Your task to perform on an android device: turn smart compose on in the gmail app Image 0: 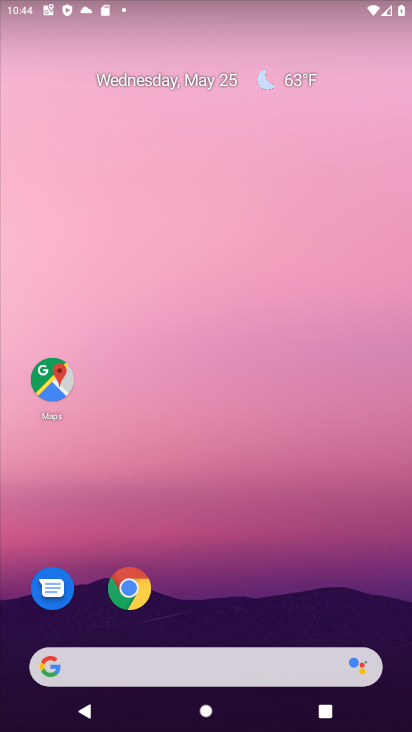
Step 0: drag from (268, 553) to (244, 264)
Your task to perform on an android device: turn smart compose on in the gmail app Image 1: 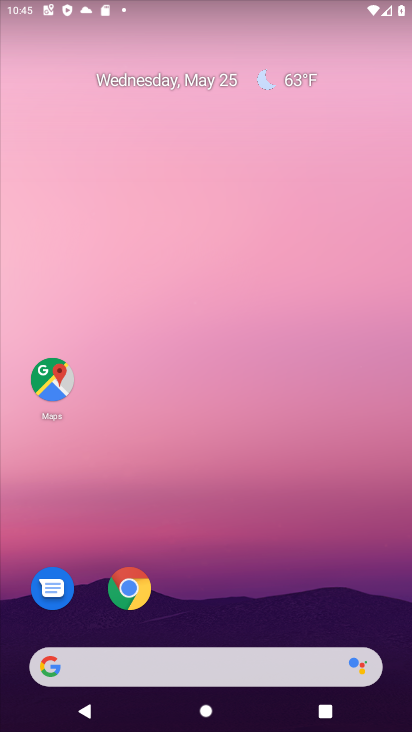
Step 1: drag from (235, 621) to (231, 62)
Your task to perform on an android device: turn smart compose on in the gmail app Image 2: 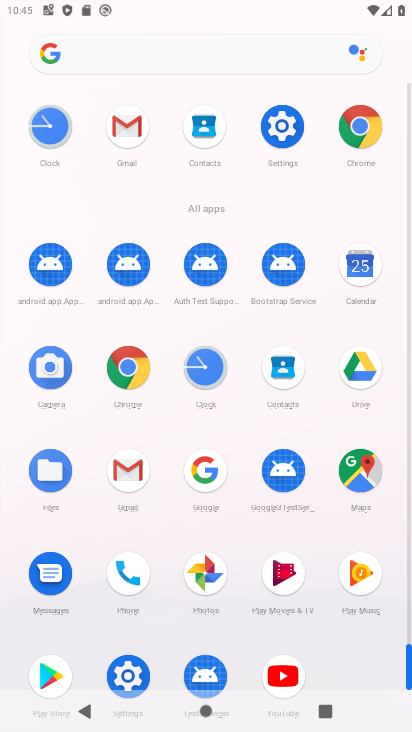
Step 2: click (123, 458)
Your task to perform on an android device: turn smart compose on in the gmail app Image 3: 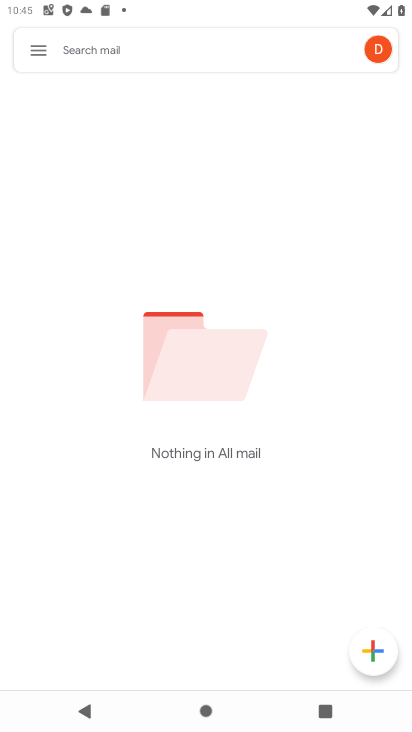
Step 3: click (34, 52)
Your task to perform on an android device: turn smart compose on in the gmail app Image 4: 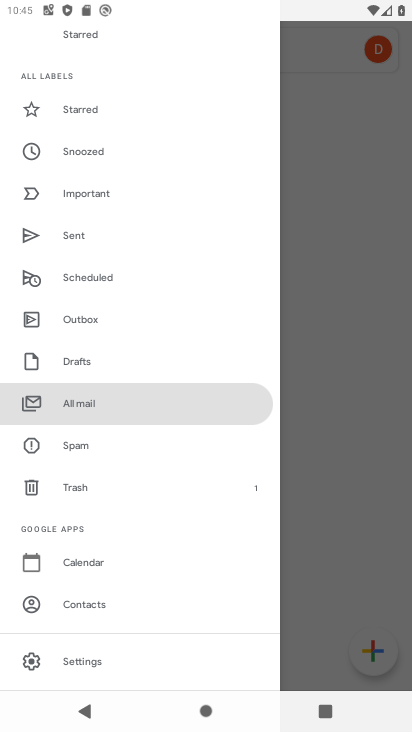
Step 4: click (101, 655)
Your task to perform on an android device: turn smart compose on in the gmail app Image 5: 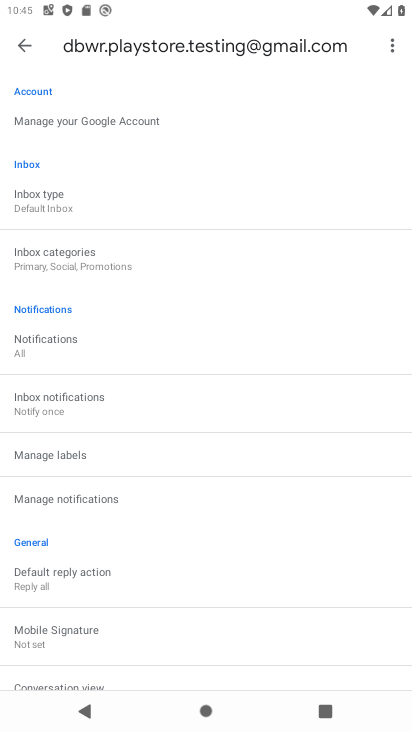
Step 5: task complete